Your task to perform on an android device: clear all cookies in the chrome app Image 0: 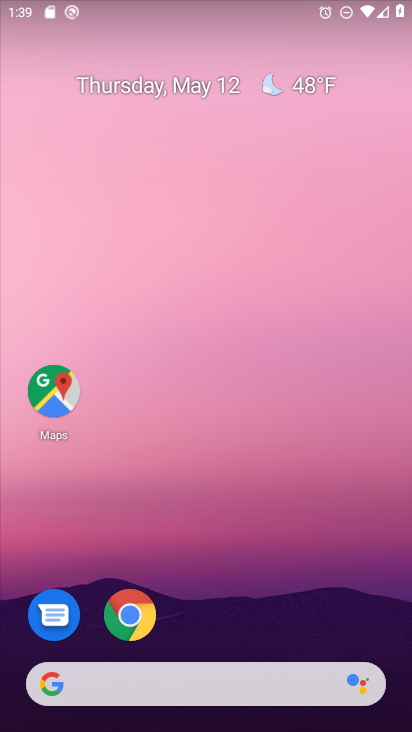
Step 0: drag from (186, 668) to (272, 11)
Your task to perform on an android device: clear all cookies in the chrome app Image 1: 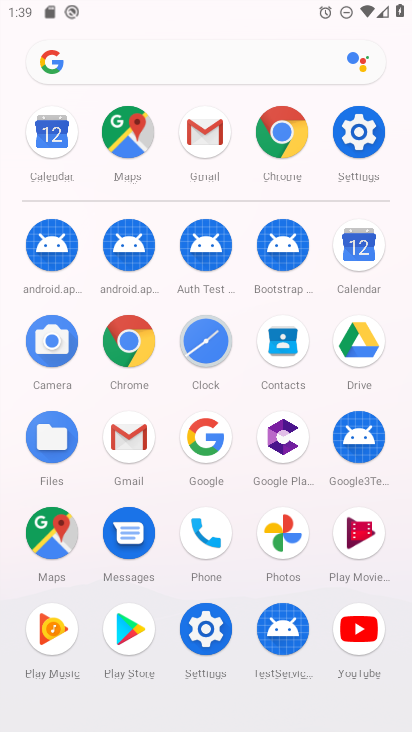
Step 1: click (121, 341)
Your task to perform on an android device: clear all cookies in the chrome app Image 2: 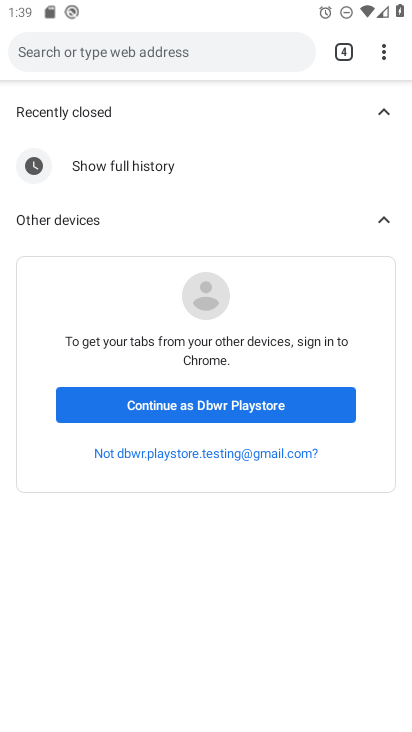
Step 2: click (376, 53)
Your task to perform on an android device: clear all cookies in the chrome app Image 3: 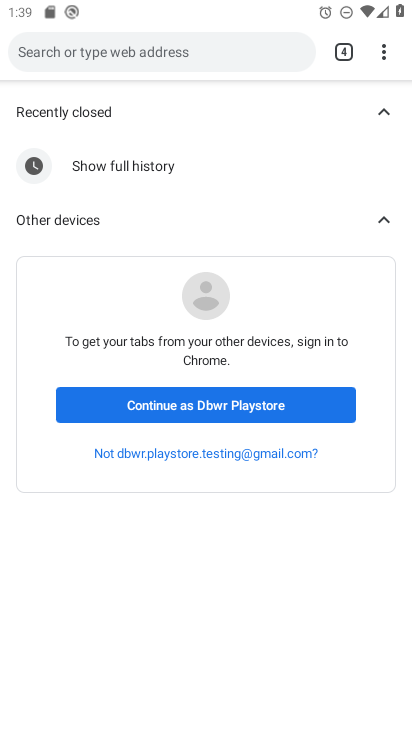
Step 3: click (378, 48)
Your task to perform on an android device: clear all cookies in the chrome app Image 4: 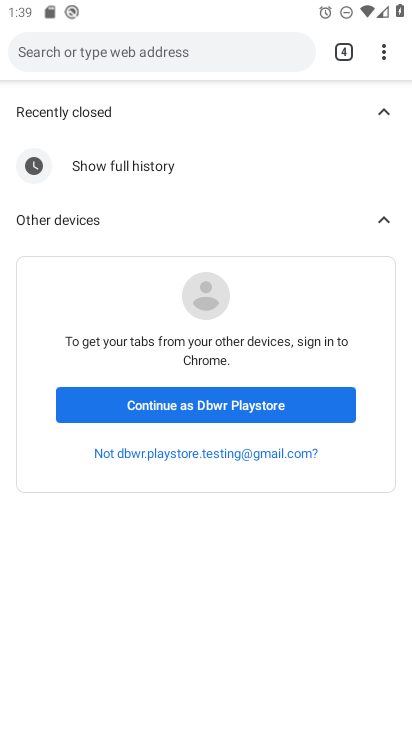
Step 4: drag from (379, 53) to (201, 427)
Your task to perform on an android device: clear all cookies in the chrome app Image 5: 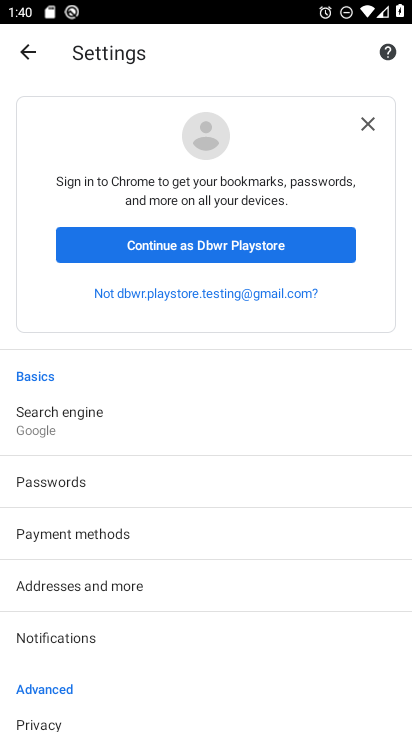
Step 5: drag from (278, 643) to (345, 134)
Your task to perform on an android device: clear all cookies in the chrome app Image 6: 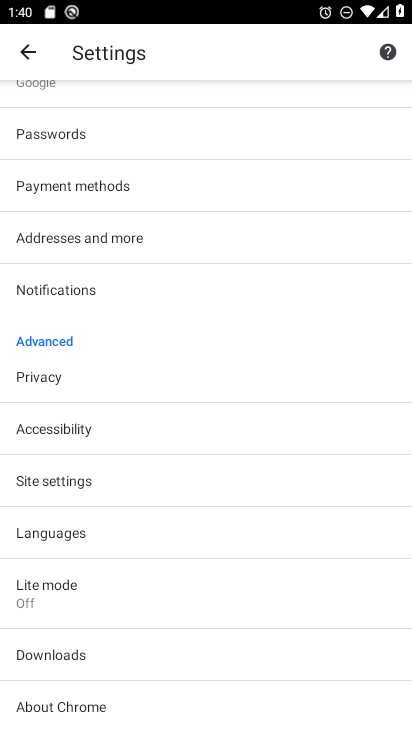
Step 6: click (138, 379)
Your task to perform on an android device: clear all cookies in the chrome app Image 7: 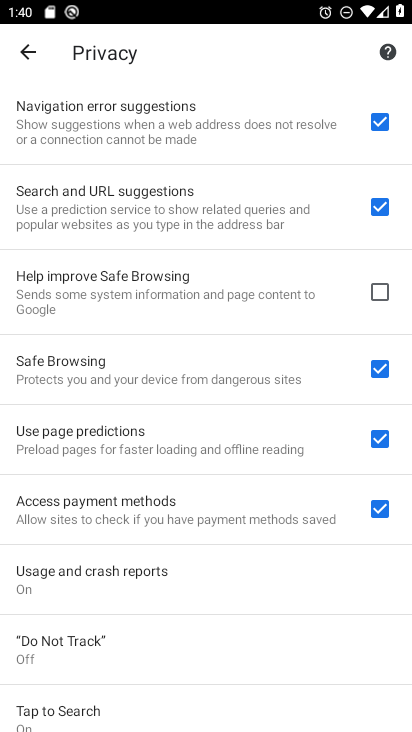
Step 7: drag from (233, 700) to (222, 108)
Your task to perform on an android device: clear all cookies in the chrome app Image 8: 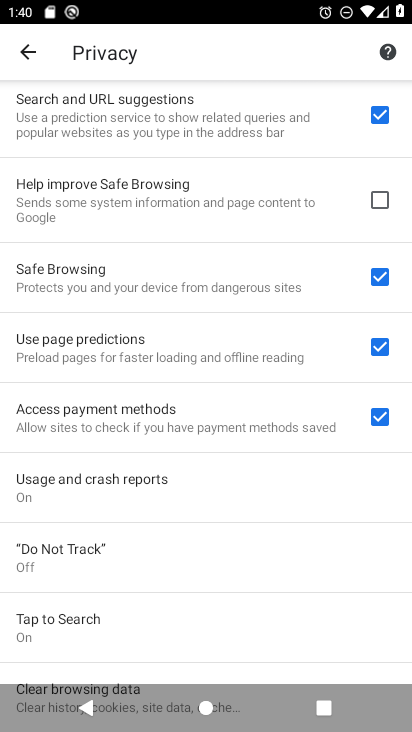
Step 8: click (154, 674)
Your task to perform on an android device: clear all cookies in the chrome app Image 9: 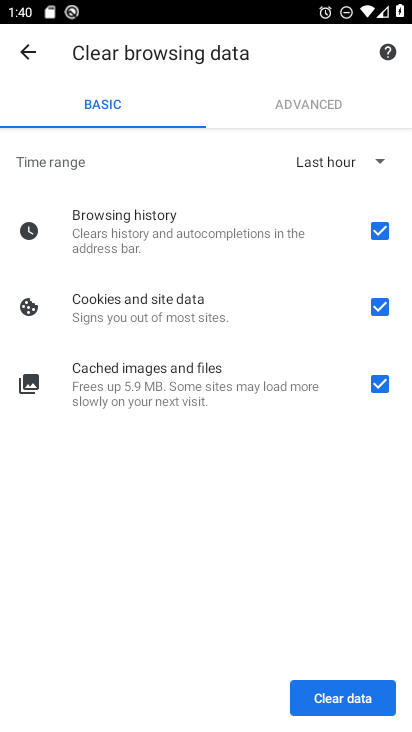
Step 9: click (358, 689)
Your task to perform on an android device: clear all cookies in the chrome app Image 10: 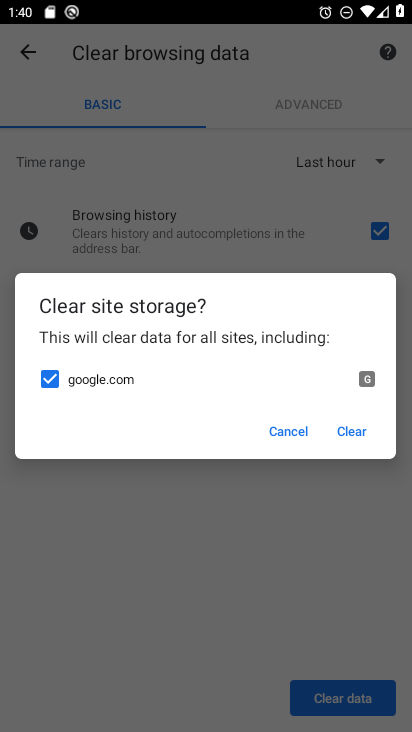
Step 10: click (360, 431)
Your task to perform on an android device: clear all cookies in the chrome app Image 11: 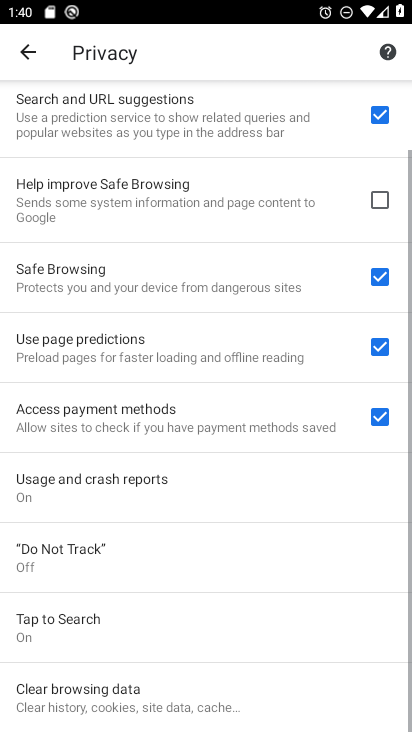
Step 11: task complete